Your task to perform on an android device: Search for seafood restaurants on Google Maps Image 0: 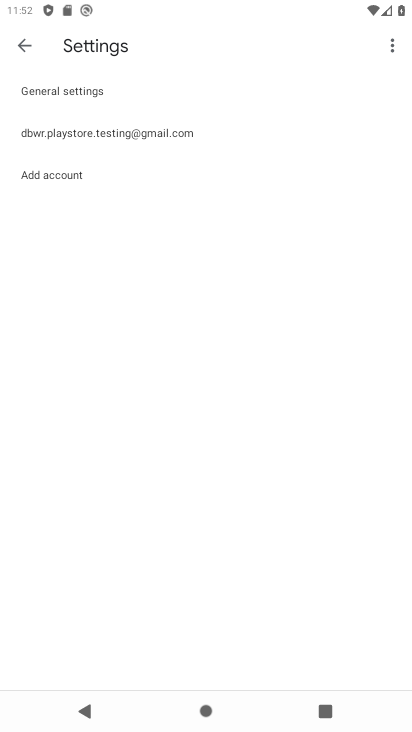
Step 0: press back button
Your task to perform on an android device: Search for seafood restaurants on Google Maps Image 1: 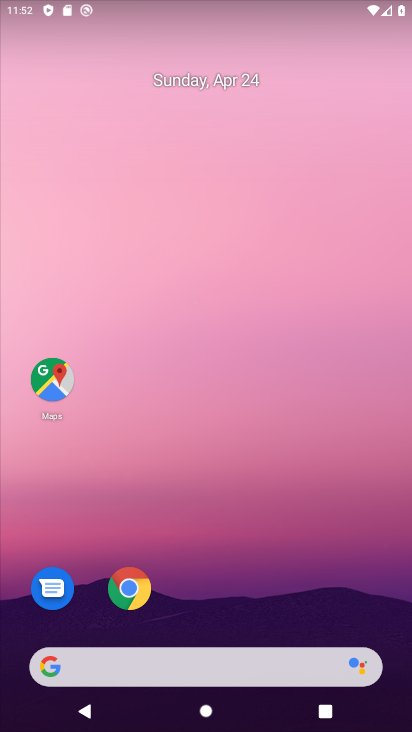
Step 1: click (33, 385)
Your task to perform on an android device: Search for seafood restaurants on Google Maps Image 2: 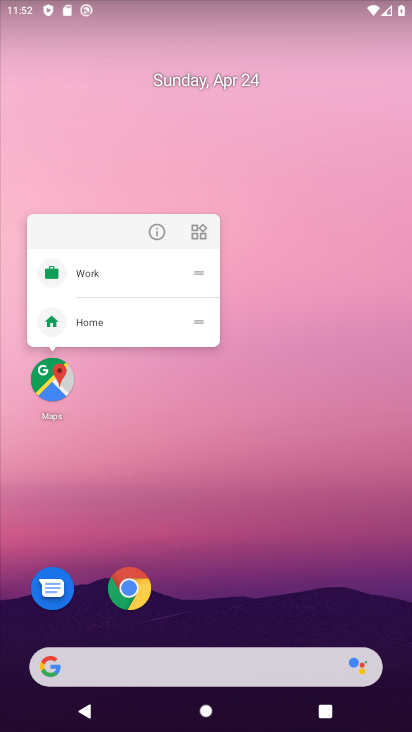
Step 2: click (51, 378)
Your task to perform on an android device: Search for seafood restaurants on Google Maps Image 3: 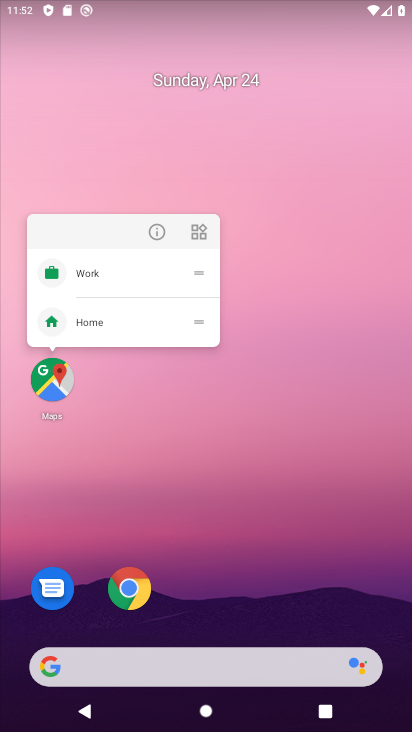
Step 3: click (63, 375)
Your task to perform on an android device: Search for seafood restaurants on Google Maps Image 4: 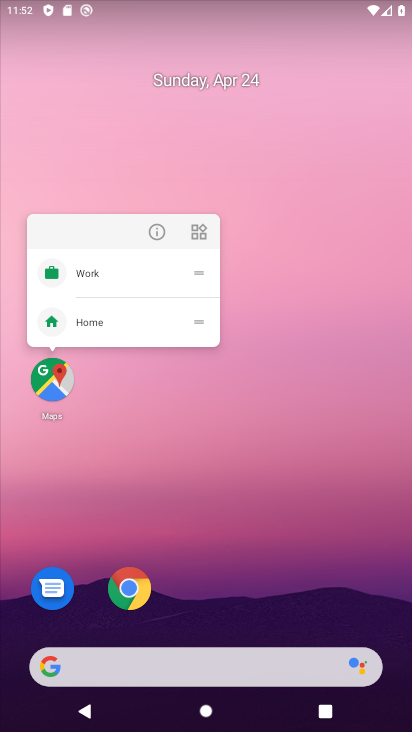
Step 4: click (58, 382)
Your task to perform on an android device: Search for seafood restaurants on Google Maps Image 5: 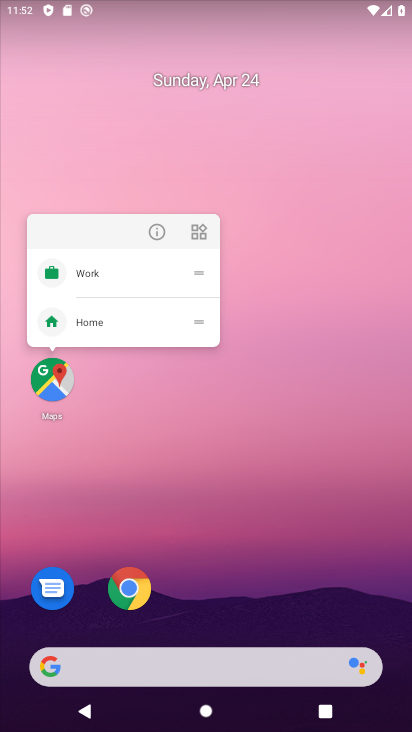
Step 5: click (56, 375)
Your task to perform on an android device: Search for seafood restaurants on Google Maps Image 6: 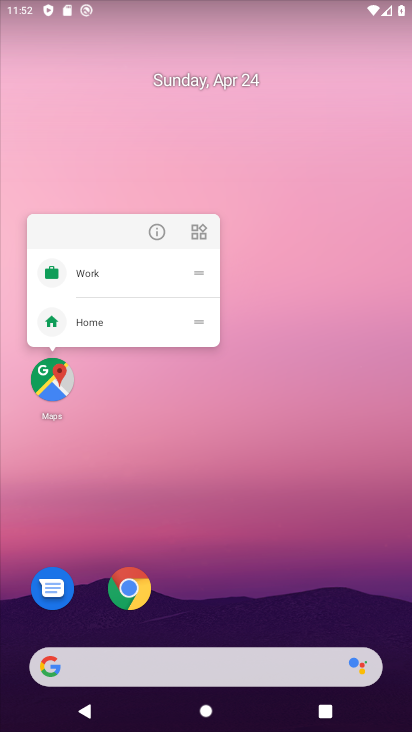
Step 6: click (53, 383)
Your task to perform on an android device: Search for seafood restaurants on Google Maps Image 7: 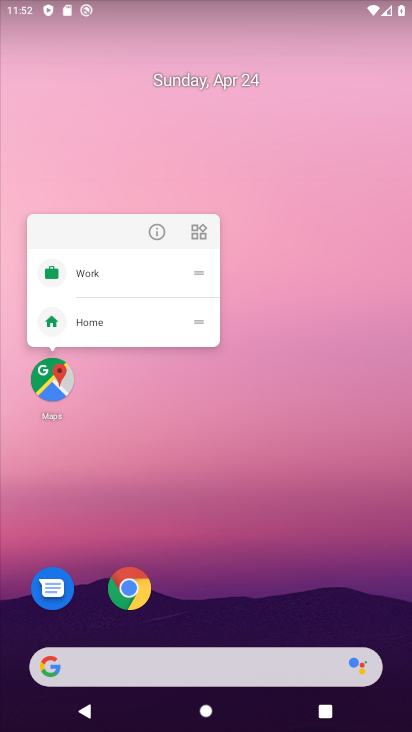
Step 7: click (53, 383)
Your task to perform on an android device: Search for seafood restaurants on Google Maps Image 8: 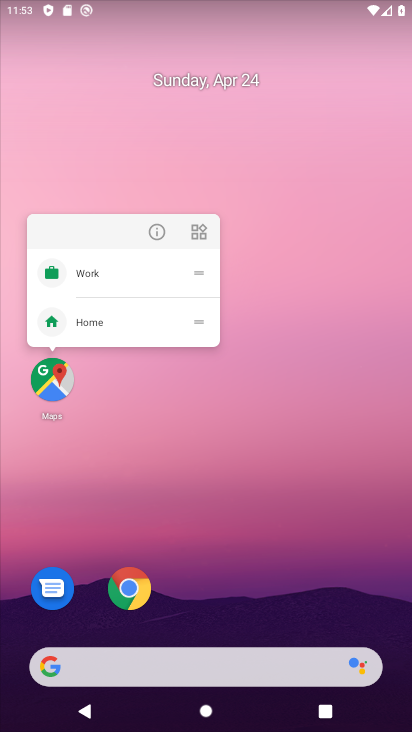
Step 8: click (59, 387)
Your task to perform on an android device: Search for seafood restaurants on Google Maps Image 9: 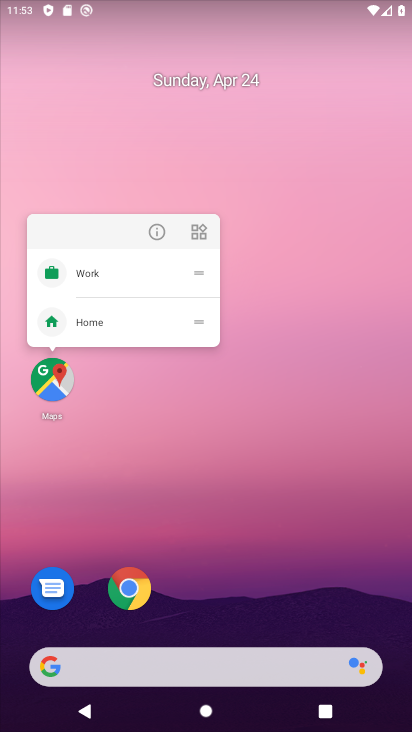
Step 9: click (55, 387)
Your task to perform on an android device: Search for seafood restaurants on Google Maps Image 10: 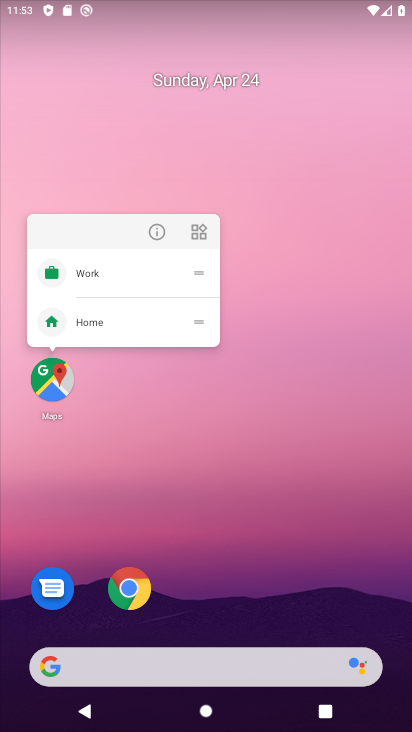
Step 10: drag from (276, 452) to (345, 0)
Your task to perform on an android device: Search for seafood restaurants on Google Maps Image 11: 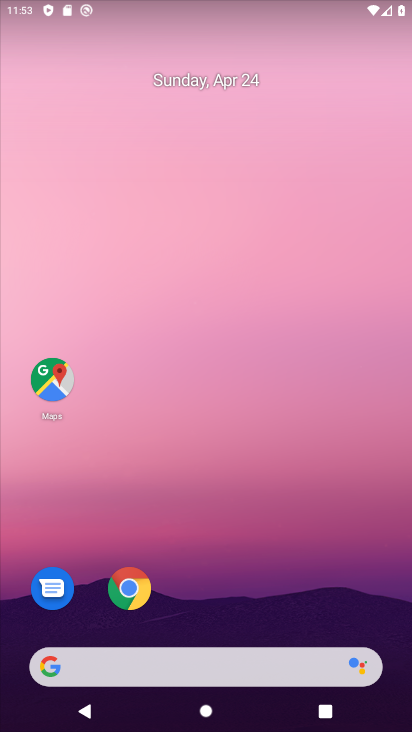
Step 11: drag from (203, 647) to (347, 34)
Your task to perform on an android device: Search for seafood restaurants on Google Maps Image 12: 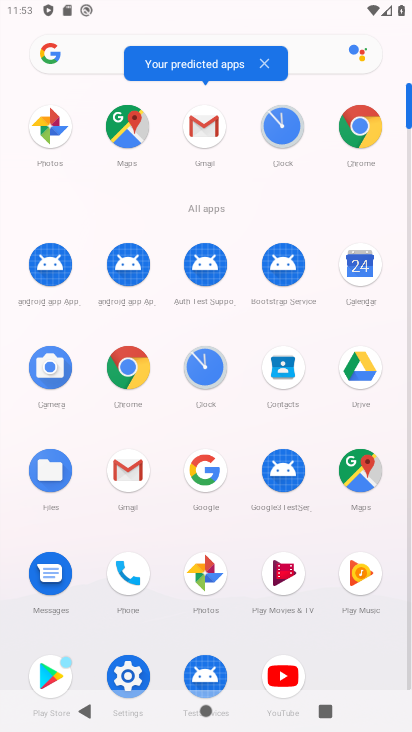
Step 12: click (372, 470)
Your task to perform on an android device: Search for seafood restaurants on Google Maps Image 13: 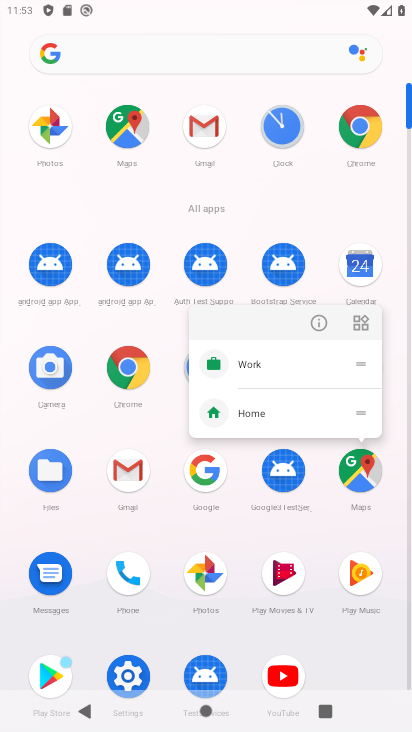
Step 13: click (369, 471)
Your task to perform on an android device: Search for seafood restaurants on Google Maps Image 14: 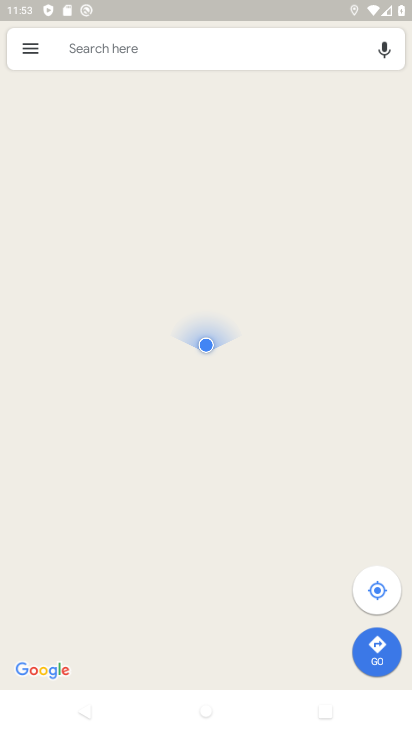
Step 14: click (111, 60)
Your task to perform on an android device: Search for seafood restaurants on Google Maps Image 15: 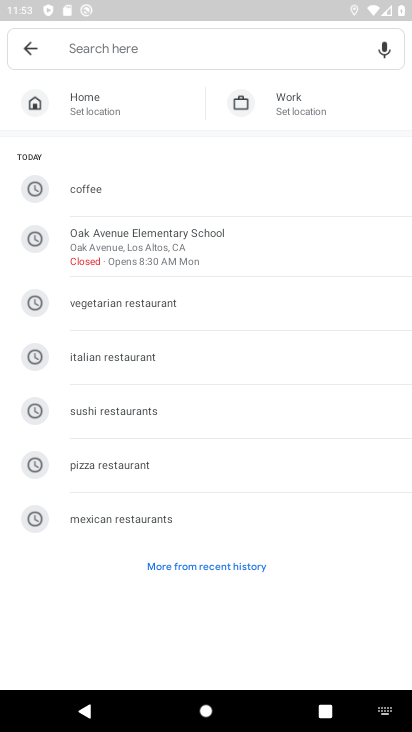
Step 15: type "seafood restaurants"
Your task to perform on an android device: Search for seafood restaurants on Google Maps Image 16: 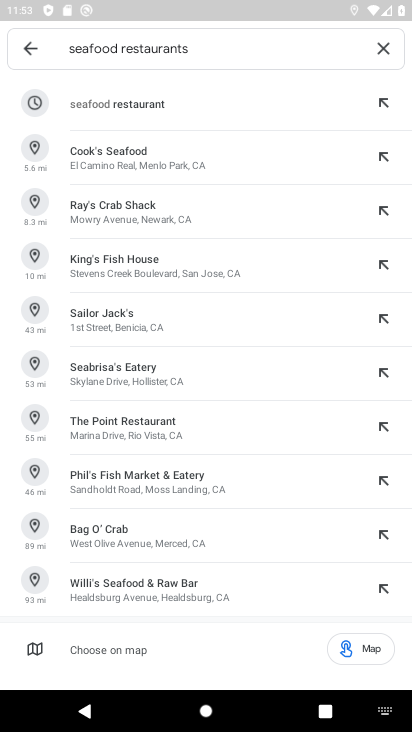
Step 16: click (214, 107)
Your task to perform on an android device: Search for seafood restaurants on Google Maps Image 17: 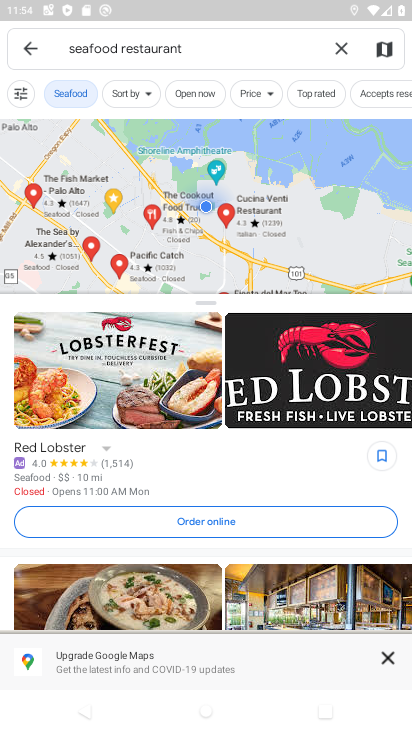
Step 17: task complete